Your task to perform on an android device: stop showing notifications on the lock screen Image 0: 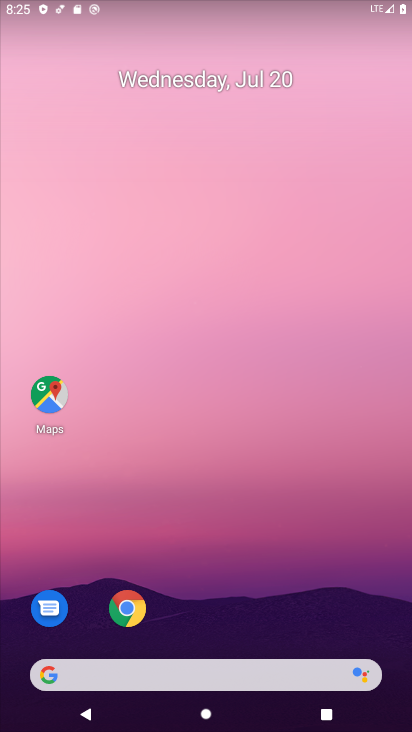
Step 0: drag from (347, 620) to (247, 81)
Your task to perform on an android device: stop showing notifications on the lock screen Image 1: 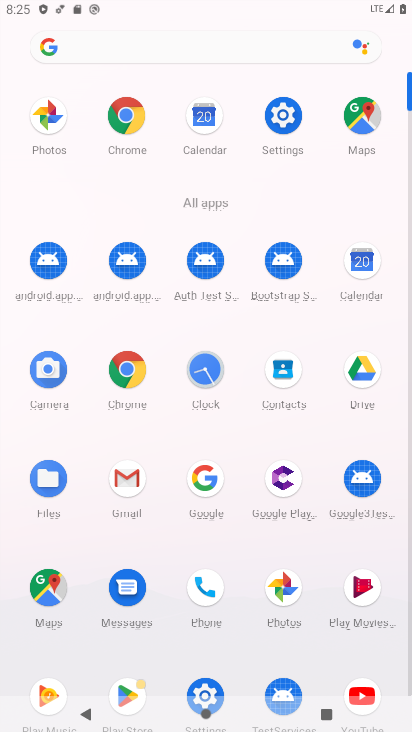
Step 1: click (284, 105)
Your task to perform on an android device: stop showing notifications on the lock screen Image 2: 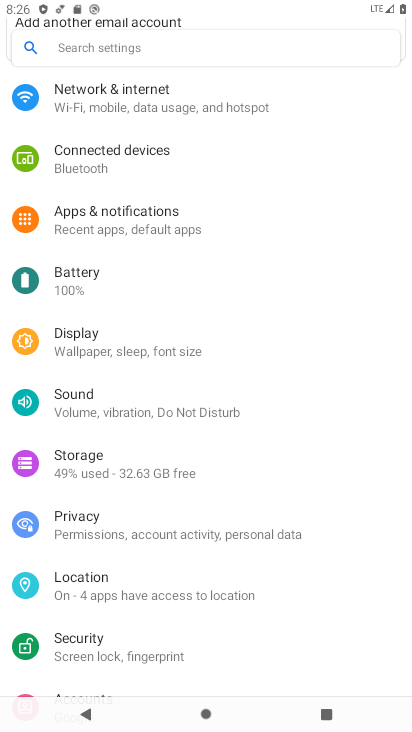
Step 2: click (154, 231)
Your task to perform on an android device: stop showing notifications on the lock screen Image 3: 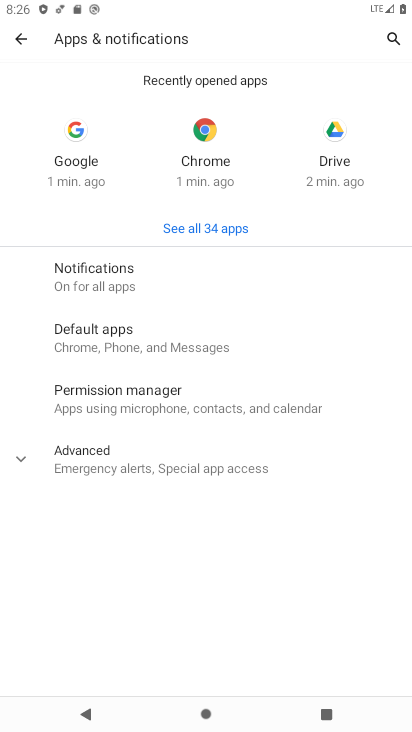
Step 3: click (85, 277)
Your task to perform on an android device: stop showing notifications on the lock screen Image 4: 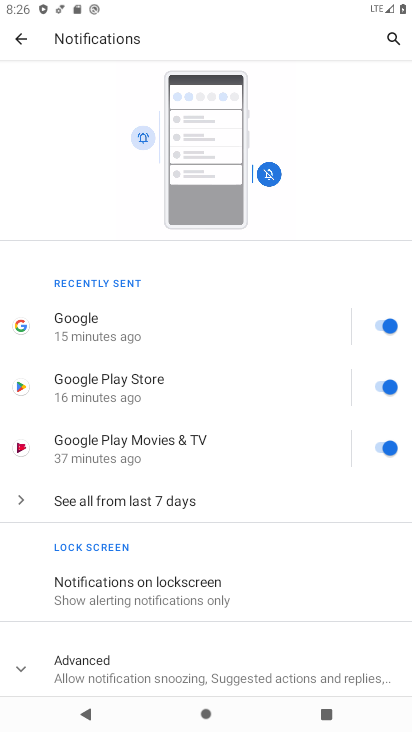
Step 4: click (198, 586)
Your task to perform on an android device: stop showing notifications on the lock screen Image 5: 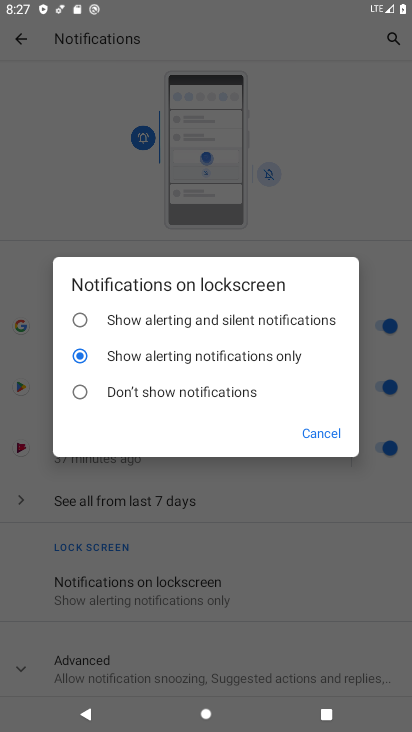
Step 5: click (108, 325)
Your task to perform on an android device: stop showing notifications on the lock screen Image 6: 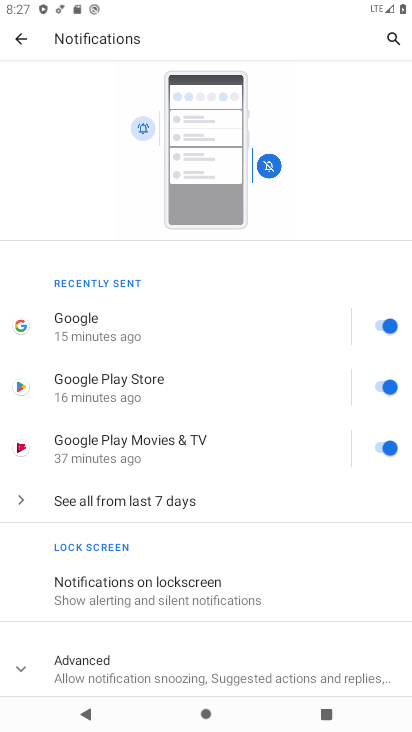
Step 6: task complete